Your task to perform on an android device: empty trash in the gmail app Image 0: 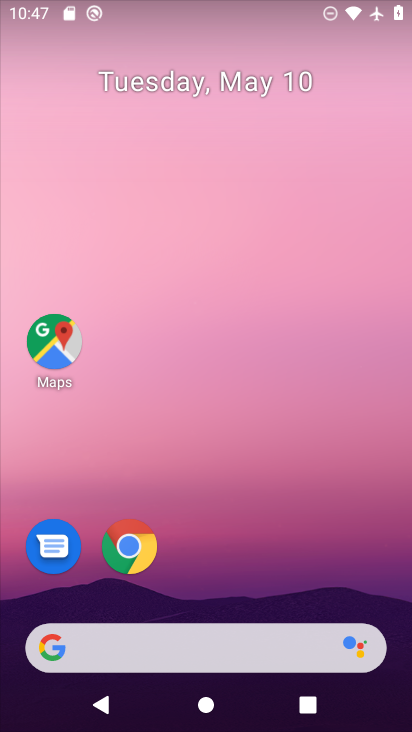
Step 0: drag from (302, 585) to (327, 118)
Your task to perform on an android device: empty trash in the gmail app Image 1: 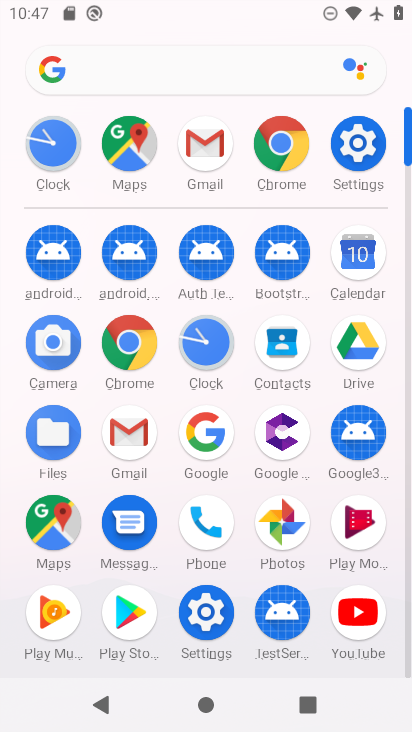
Step 1: drag from (240, 563) to (322, 282)
Your task to perform on an android device: empty trash in the gmail app Image 2: 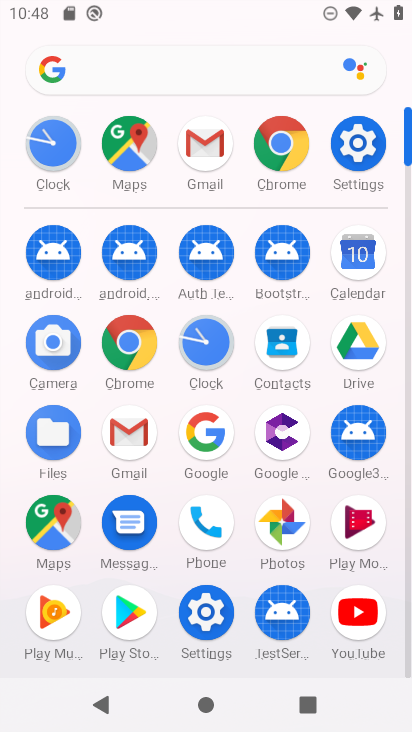
Step 2: click (127, 435)
Your task to perform on an android device: empty trash in the gmail app Image 3: 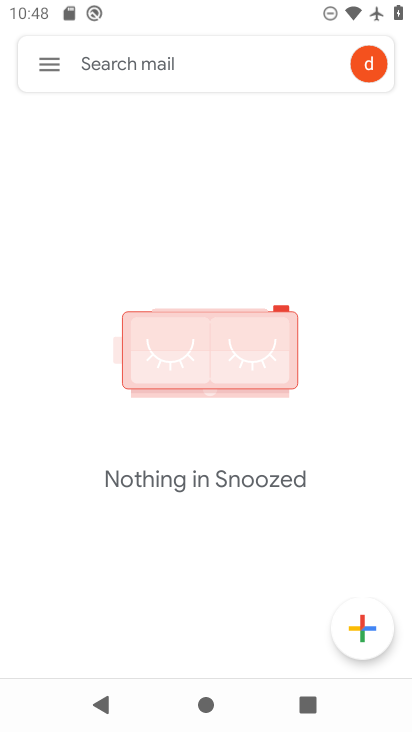
Step 3: click (58, 61)
Your task to perform on an android device: empty trash in the gmail app Image 4: 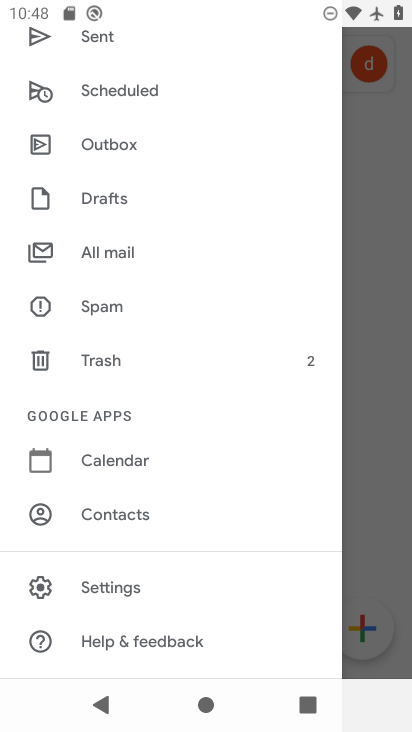
Step 4: click (94, 362)
Your task to perform on an android device: empty trash in the gmail app Image 5: 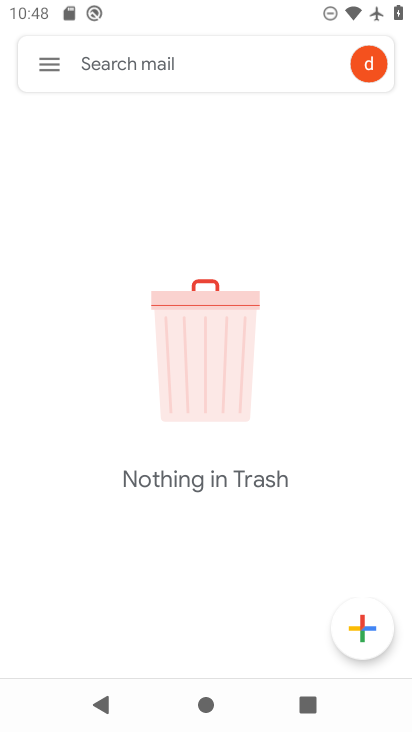
Step 5: task complete